Your task to perform on an android device: turn pop-ups on in chrome Image 0: 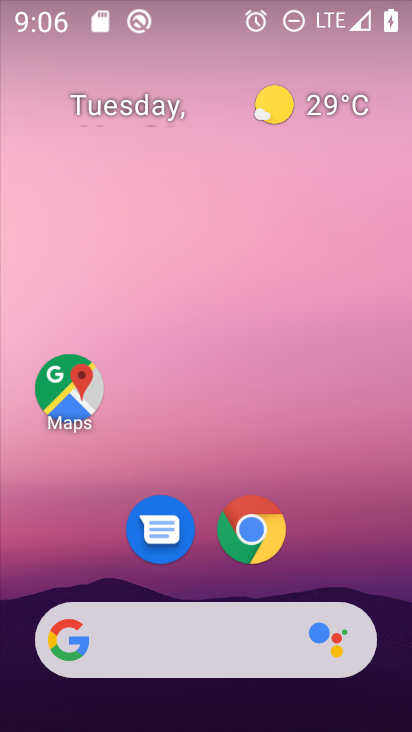
Step 0: drag from (389, 646) to (304, 12)
Your task to perform on an android device: turn pop-ups on in chrome Image 1: 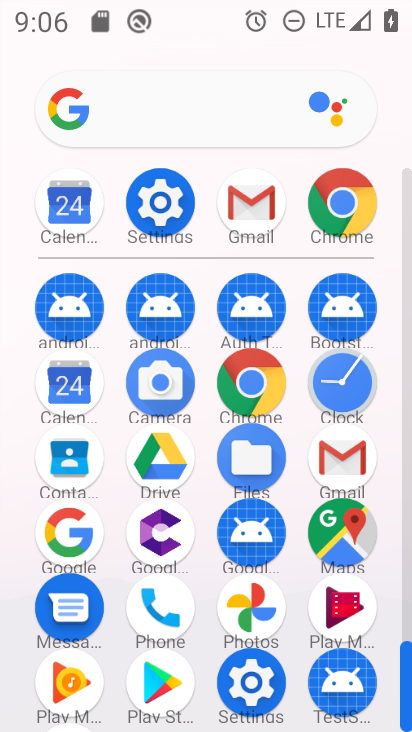
Step 1: click (338, 221)
Your task to perform on an android device: turn pop-ups on in chrome Image 2: 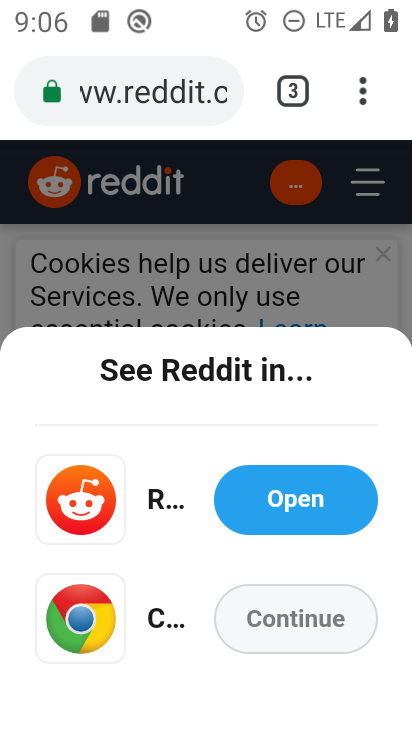
Step 2: press back button
Your task to perform on an android device: turn pop-ups on in chrome Image 3: 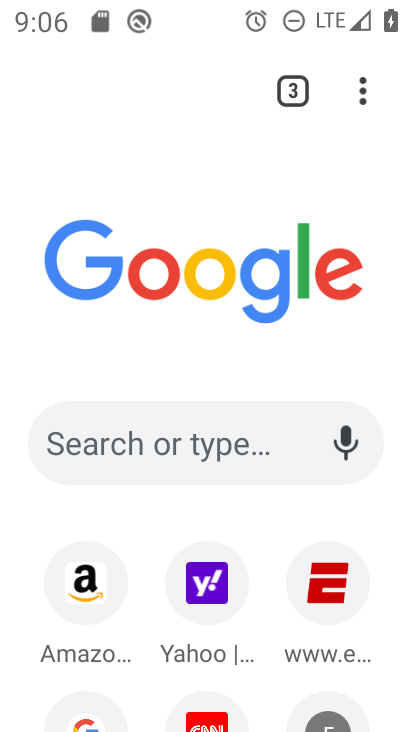
Step 3: click (361, 87)
Your task to perform on an android device: turn pop-ups on in chrome Image 4: 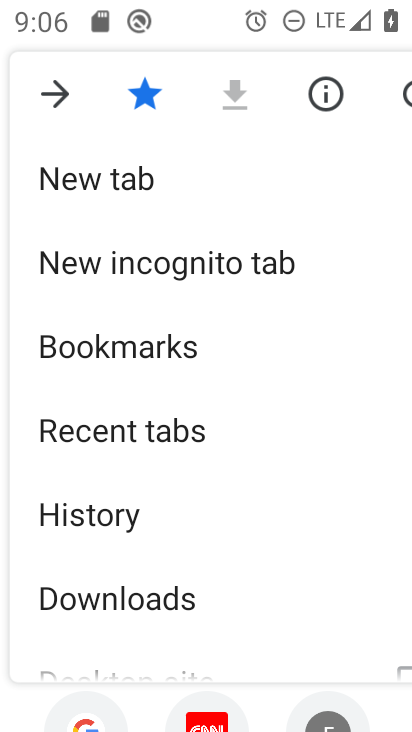
Step 4: drag from (120, 649) to (184, 230)
Your task to perform on an android device: turn pop-ups on in chrome Image 5: 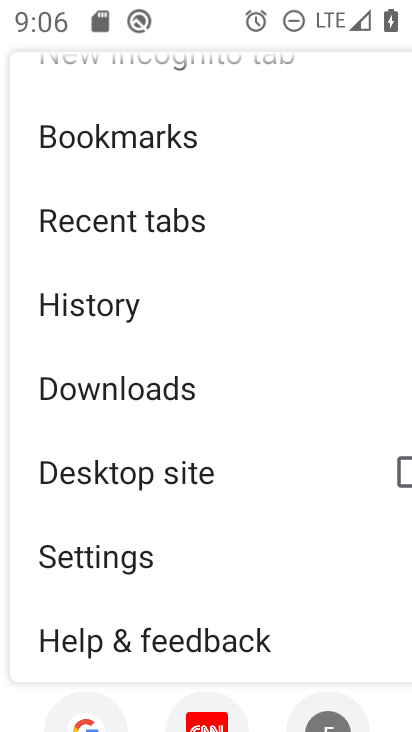
Step 5: click (166, 570)
Your task to perform on an android device: turn pop-ups on in chrome Image 6: 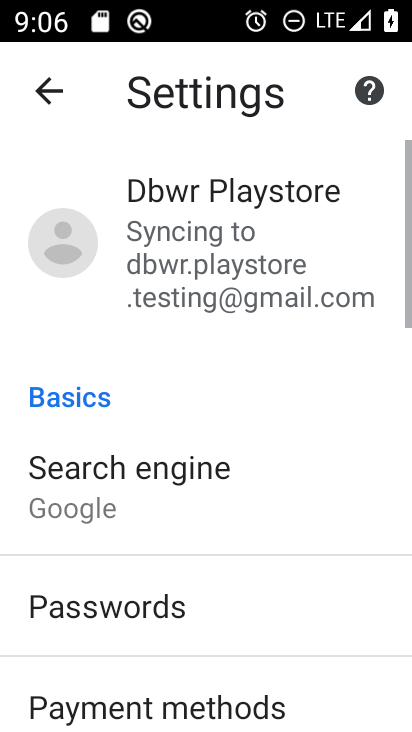
Step 6: drag from (130, 726) to (231, 166)
Your task to perform on an android device: turn pop-ups on in chrome Image 7: 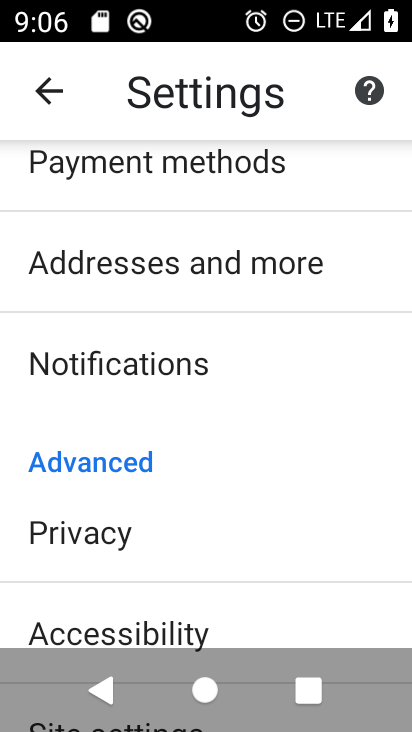
Step 7: drag from (221, 622) to (296, 288)
Your task to perform on an android device: turn pop-ups on in chrome Image 8: 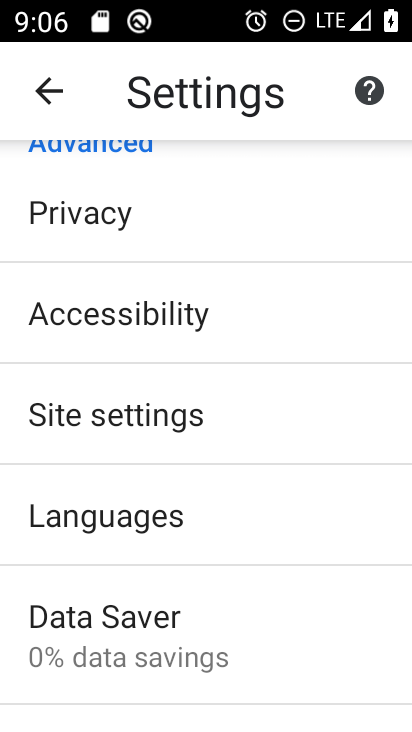
Step 8: click (220, 435)
Your task to perform on an android device: turn pop-ups on in chrome Image 9: 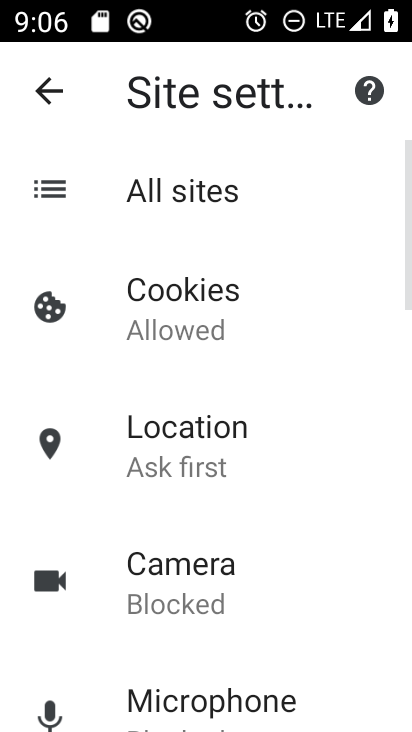
Step 9: drag from (189, 692) to (215, 293)
Your task to perform on an android device: turn pop-ups on in chrome Image 10: 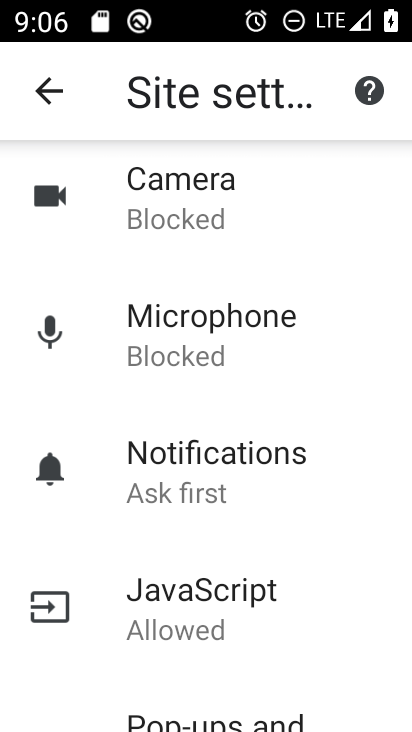
Step 10: click (211, 714)
Your task to perform on an android device: turn pop-ups on in chrome Image 11: 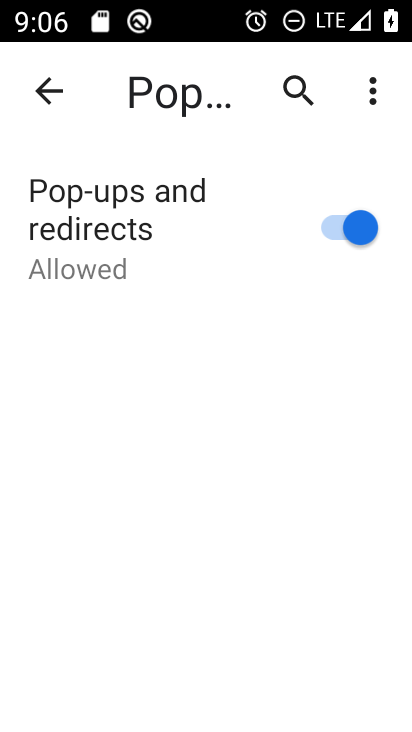
Step 11: task complete